Your task to perform on an android device: stop showing notifications on the lock screen Image 0: 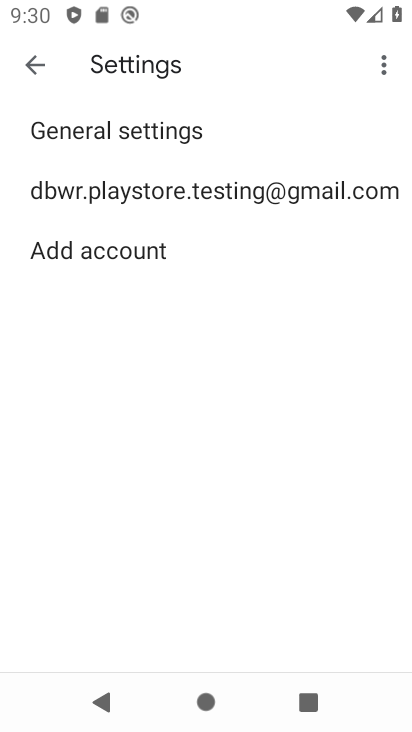
Step 0: press back button
Your task to perform on an android device: stop showing notifications on the lock screen Image 1: 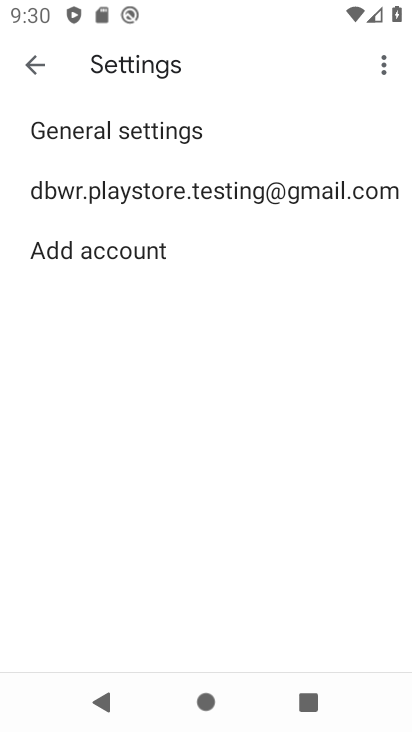
Step 1: press back button
Your task to perform on an android device: stop showing notifications on the lock screen Image 2: 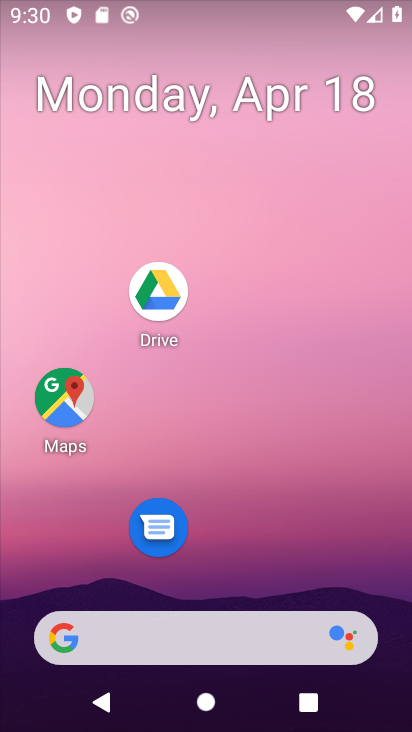
Step 2: drag from (311, 552) to (395, 22)
Your task to perform on an android device: stop showing notifications on the lock screen Image 3: 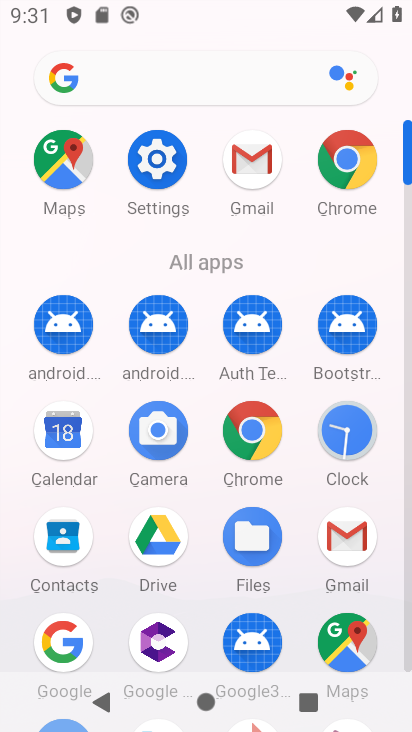
Step 3: click (174, 200)
Your task to perform on an android device: stop showing notifications on the lock screen Image 4: 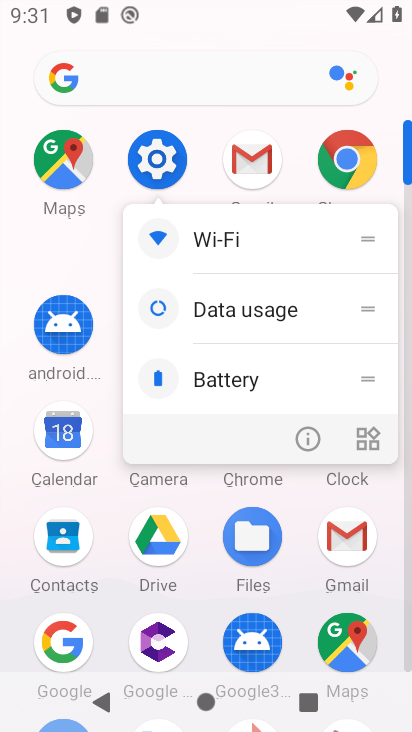
Step 4: click (162, 182)
Your task to perform on an android device: stop showing notifications on the lock screen Image 5: 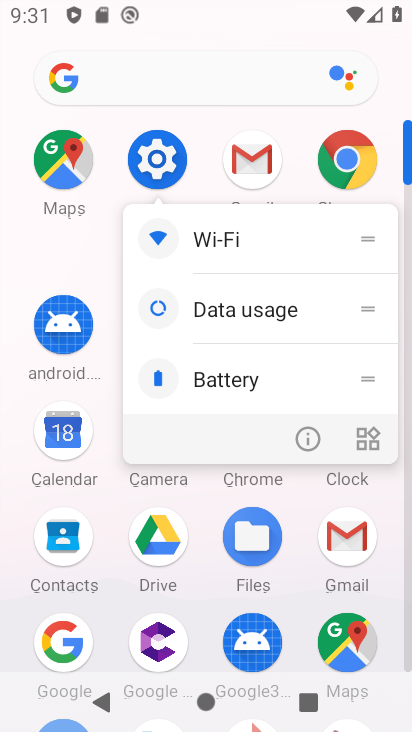
Step 5: click (162, 182)
Your task to perform on an android device: stop showing notifications on the lock screen Image 6: 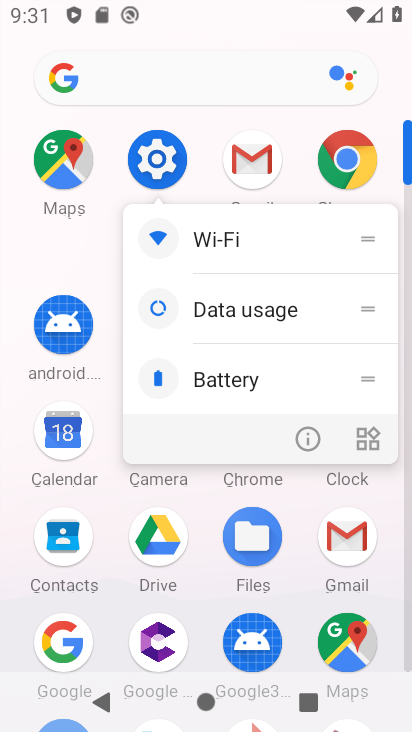
Step 6: click (153, 167)
Your task to perform on an android device: stop showing notifications on the lock screen Image 7: 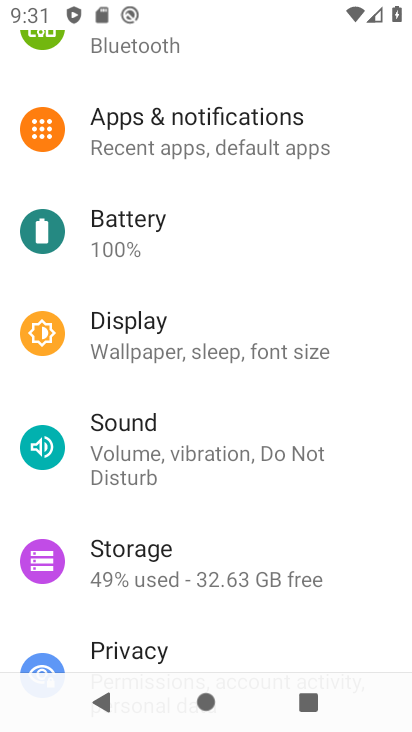
Step 7: drag from (183, 538) to (128, 214)
Your task to perform on an android device: stop showing notifications on the lock screen Image 8: 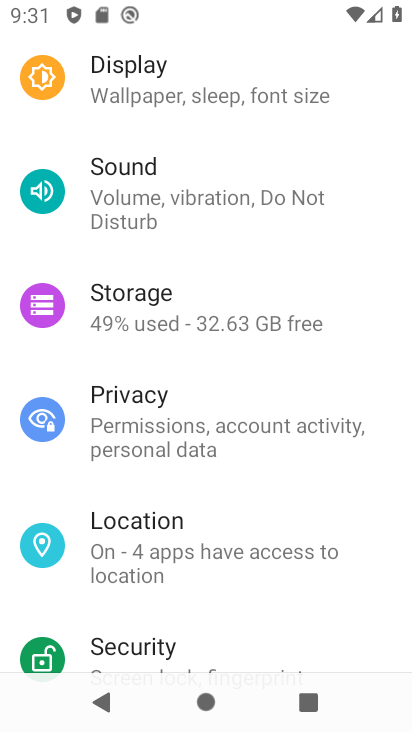
Step 8: drag from (199, 127) to (161, 408)
Your task to perform on an android device: stop showing notifications on the lock screen Image 9: 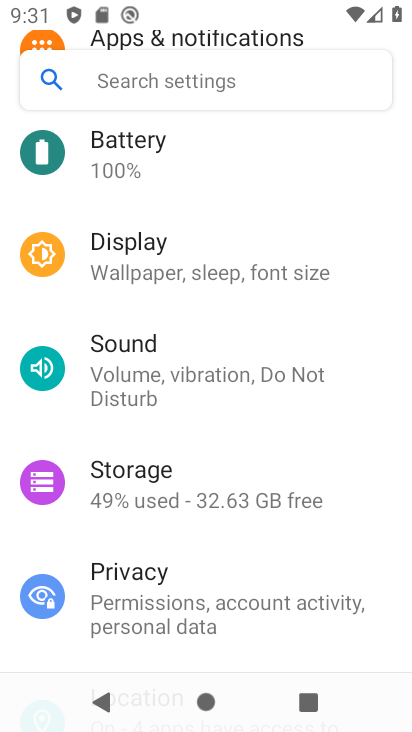
Step 9: drag from (290, 195) to (207, 558)
Your task to perform on an android device: stop showing notifications on the lock screen Image 10: 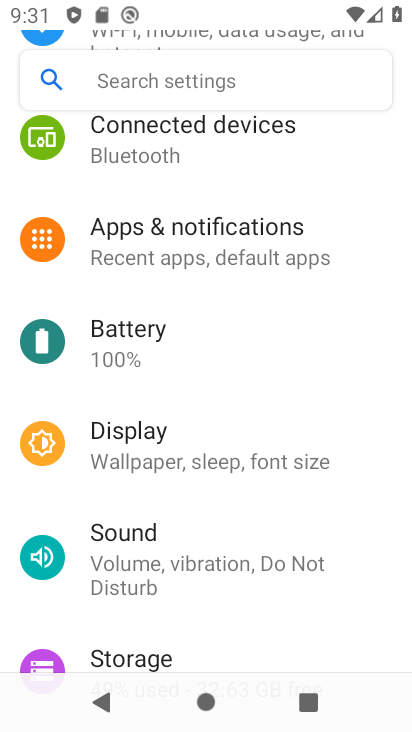
Step 10: click (241, 265)
Your task to perform on an android device: stop showing notifications on the lock screen Image 11: 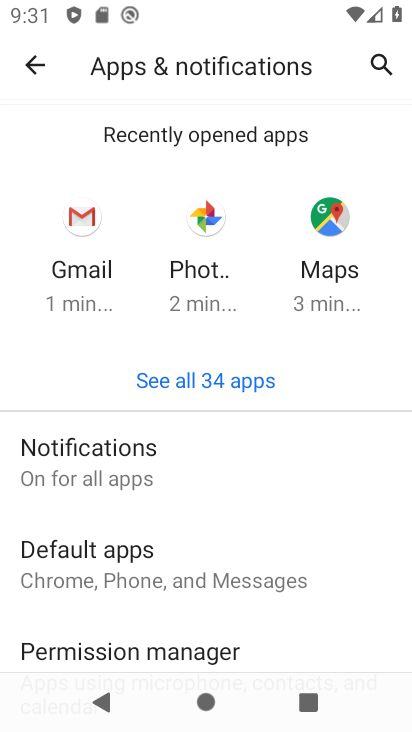
Step 11: click (205, 475)
Your task to perform on an android device: stop showing notifications on the lock screen Image 12: 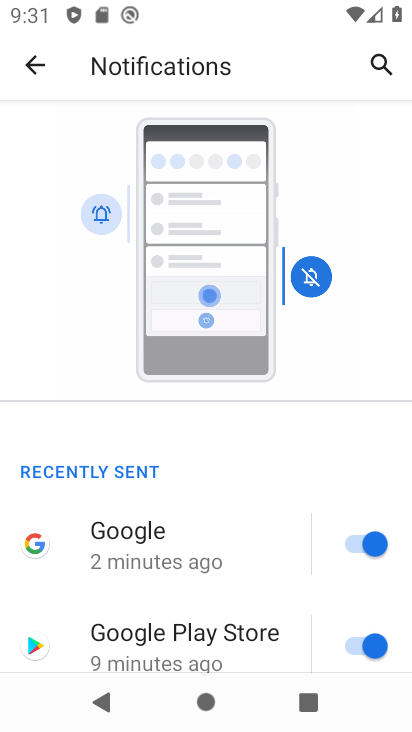
Step 12: drag from (205, 475) to (195, 249)
Your task to perform on an android device: stop showing notifications on the lock screen Image 13: 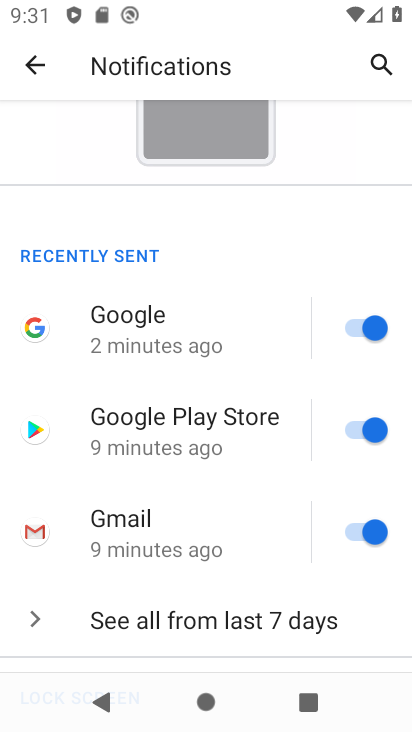
Step 13: drag from (184, 580) to (244, 9)
Your task to perform on an android device: stop showing notifications on the lock screen Image 14: 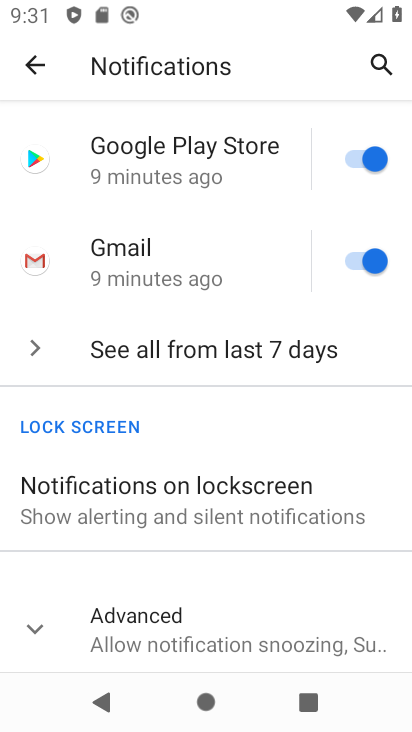
Step 14: click (282, 486)
Your task to perform on an android device: stop showing notifications on the lock screen Image 15: 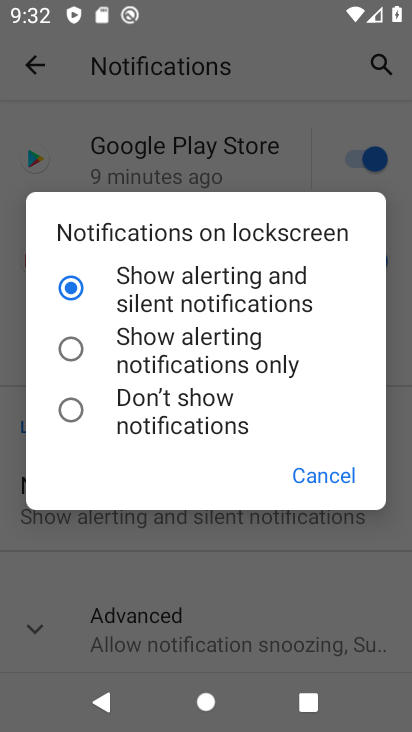
Step 15: click (267, 361)
Your task to perform on an android device: stop showing notifications on the lock screen Image 16: 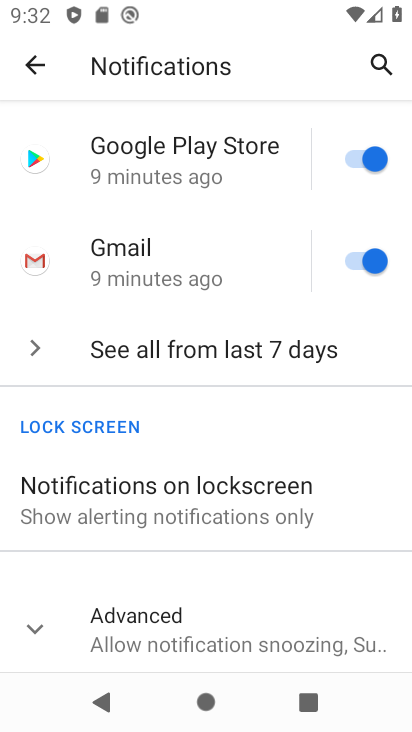
Step 16: click (226, 597)
Your task to perform on an android device: stop showing notifications on the lock screen Image 17: 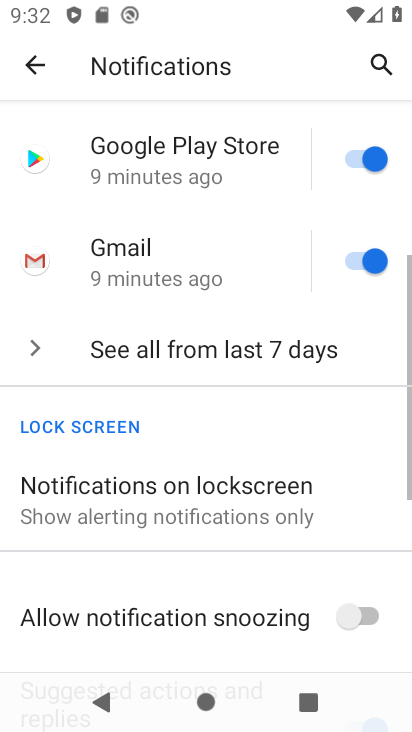
Step 17: click (214, 493)
Your task to perform on an android device: stop showing notifications on the lock screen Image 18: 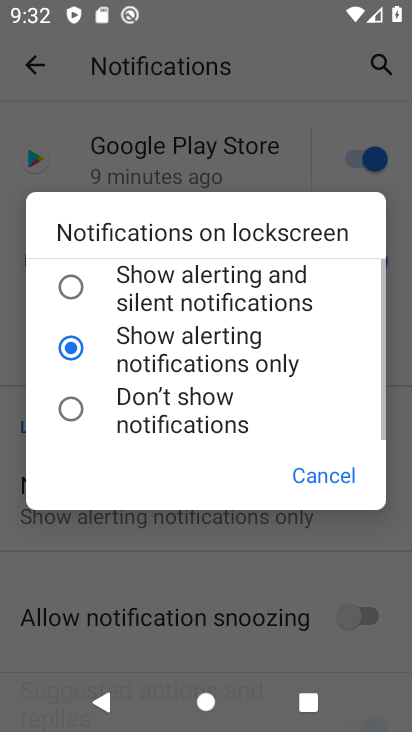
Step 18: click (205, 316)
Your task to perform on an android device: stop showing notifications on the lock screen Image 19: 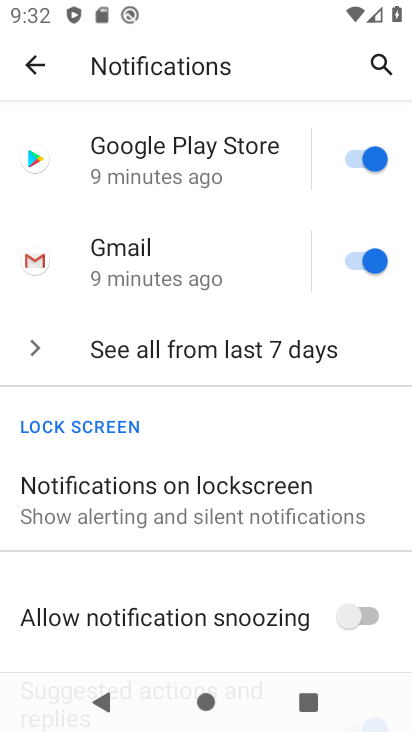
Step 19: click (170, 529)
Your task to perform on an android device: stop showing notifications on the lock screen Image 20: 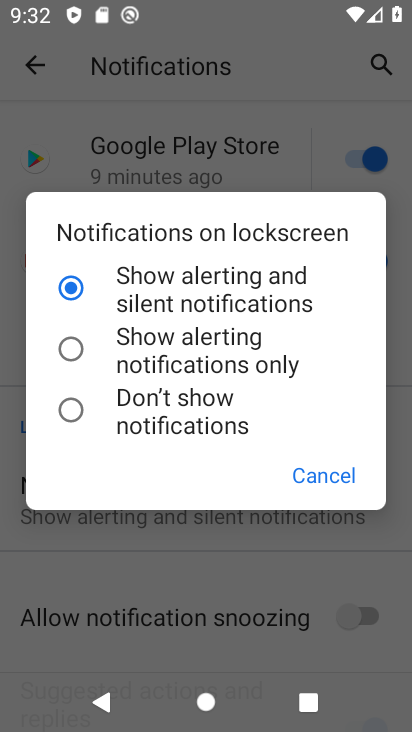
Step 20: click (157, 405)
Your task to perform on an android device: stop showing notifications on the lock screen Image 21: 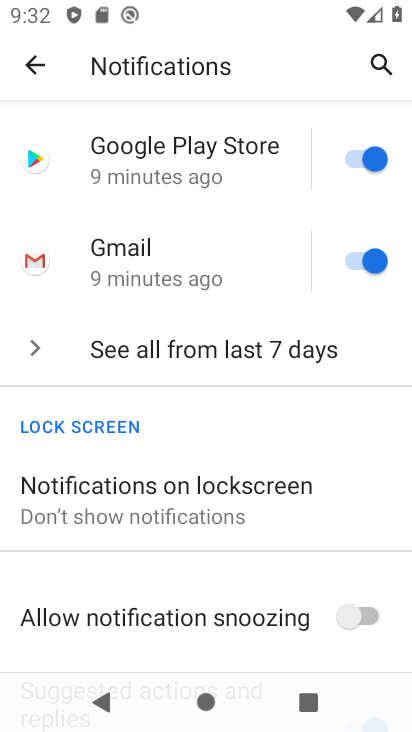
Step 21: task complete